Your task to perform on an android device: Go to ESPN.com Image 0: 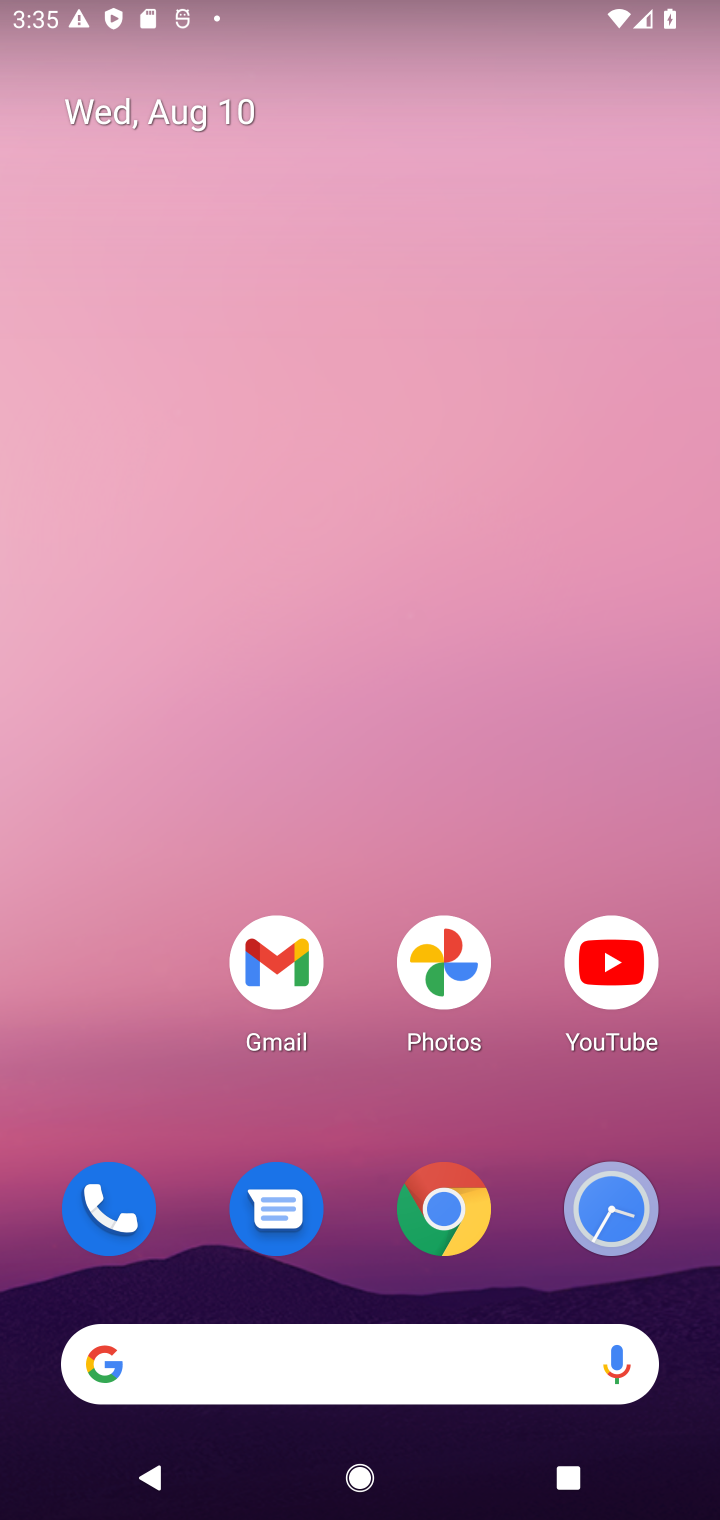
Step 0: click (424, 1201)
Your task to perform on an android device: Go to ESPN.com Image 1: 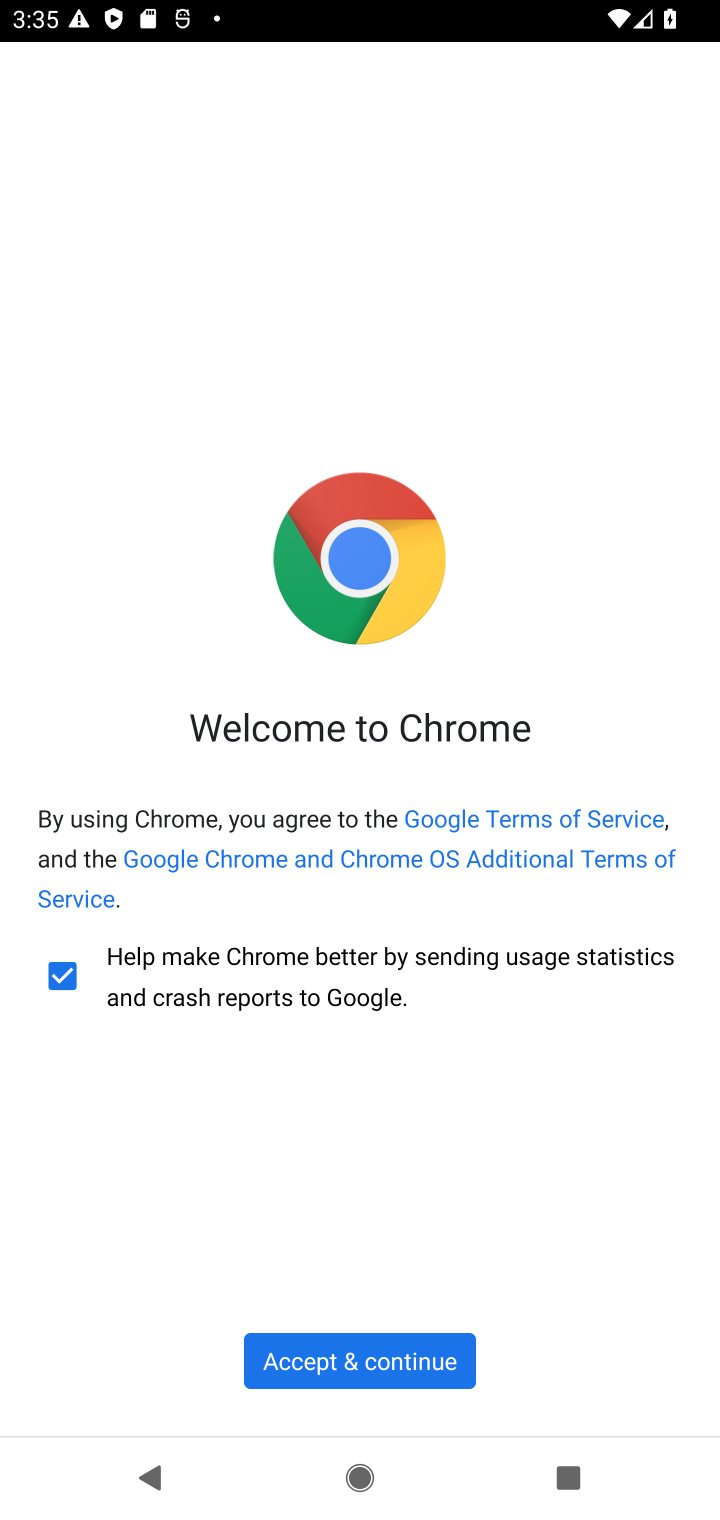
Step 1: click (388, 1362)
Your task to perform on an android device: Go to ESPN.com Image 2: 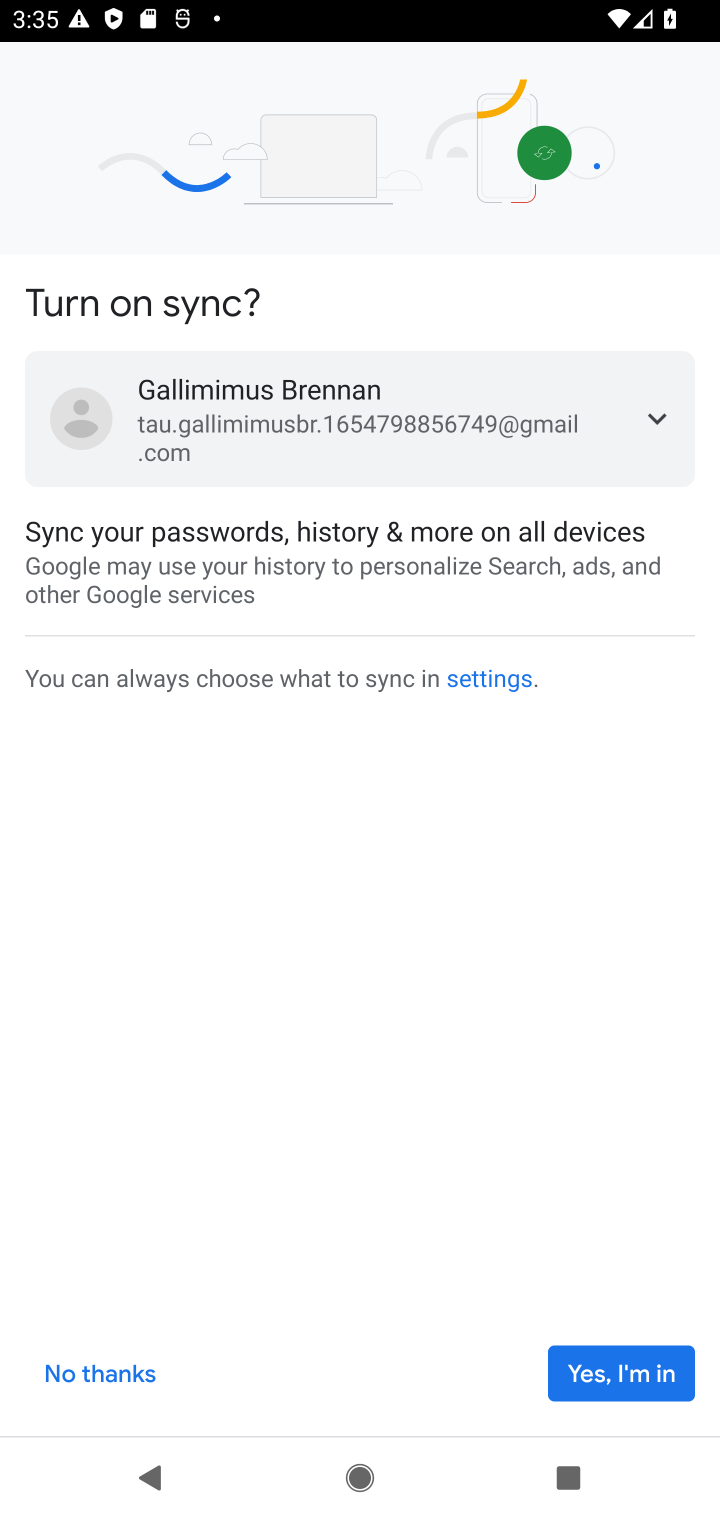
Step 2: click (656, 1355)
Your task to perform on an android device: Go to ESPN.com Image 3: 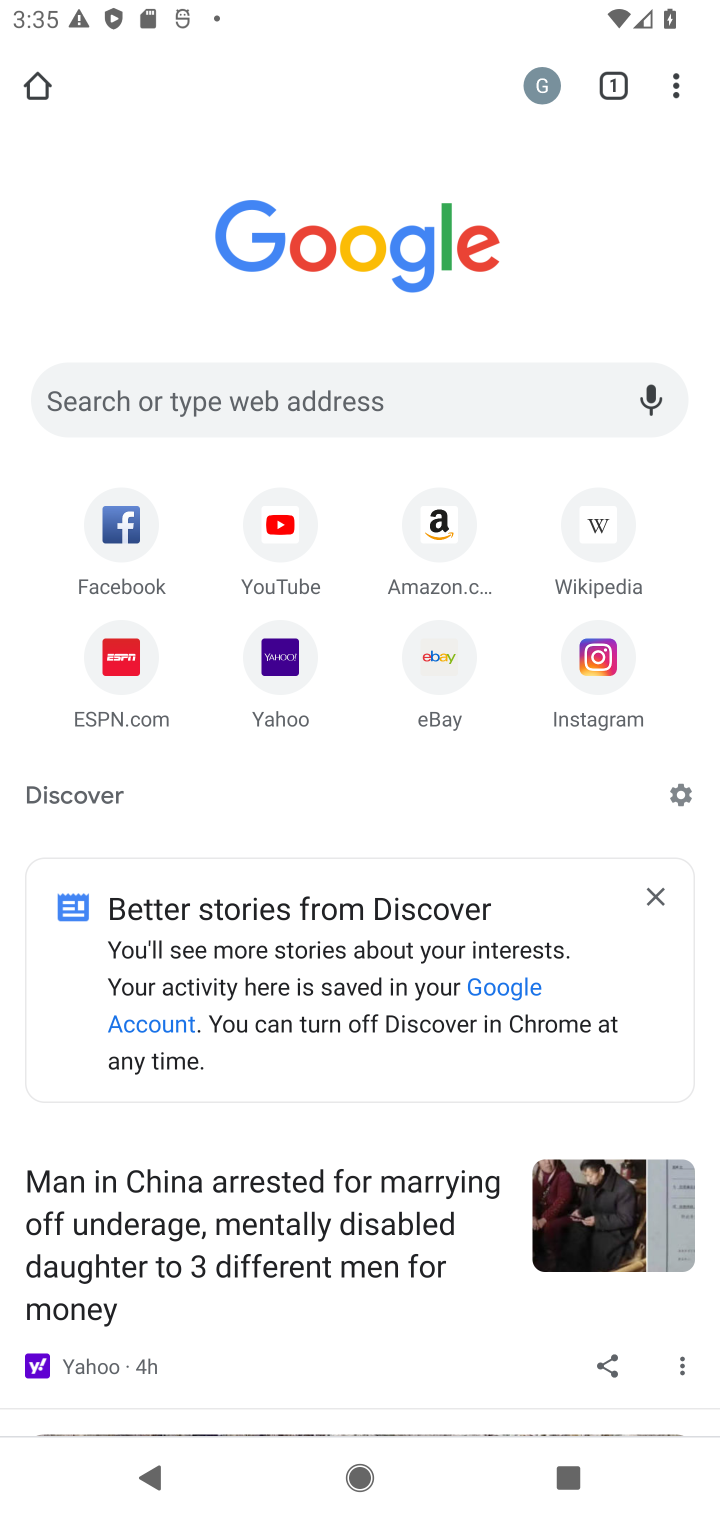
Step 3: click (97, 653)
Your task to perform on an android device: Go to ESPN.com Image 4: 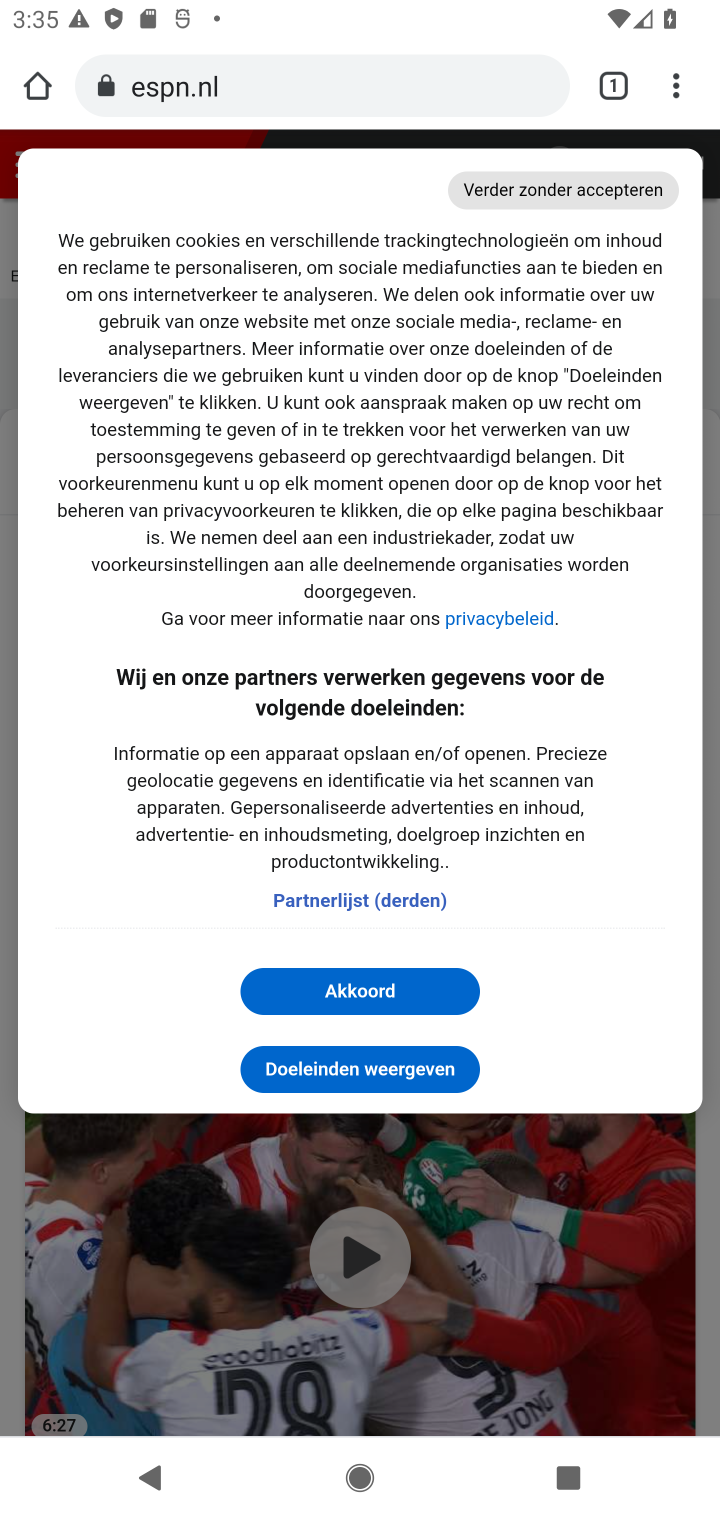
Step 4: task complete